Your task to perform on an android device: toggle javascript in the chrome app Image 0: 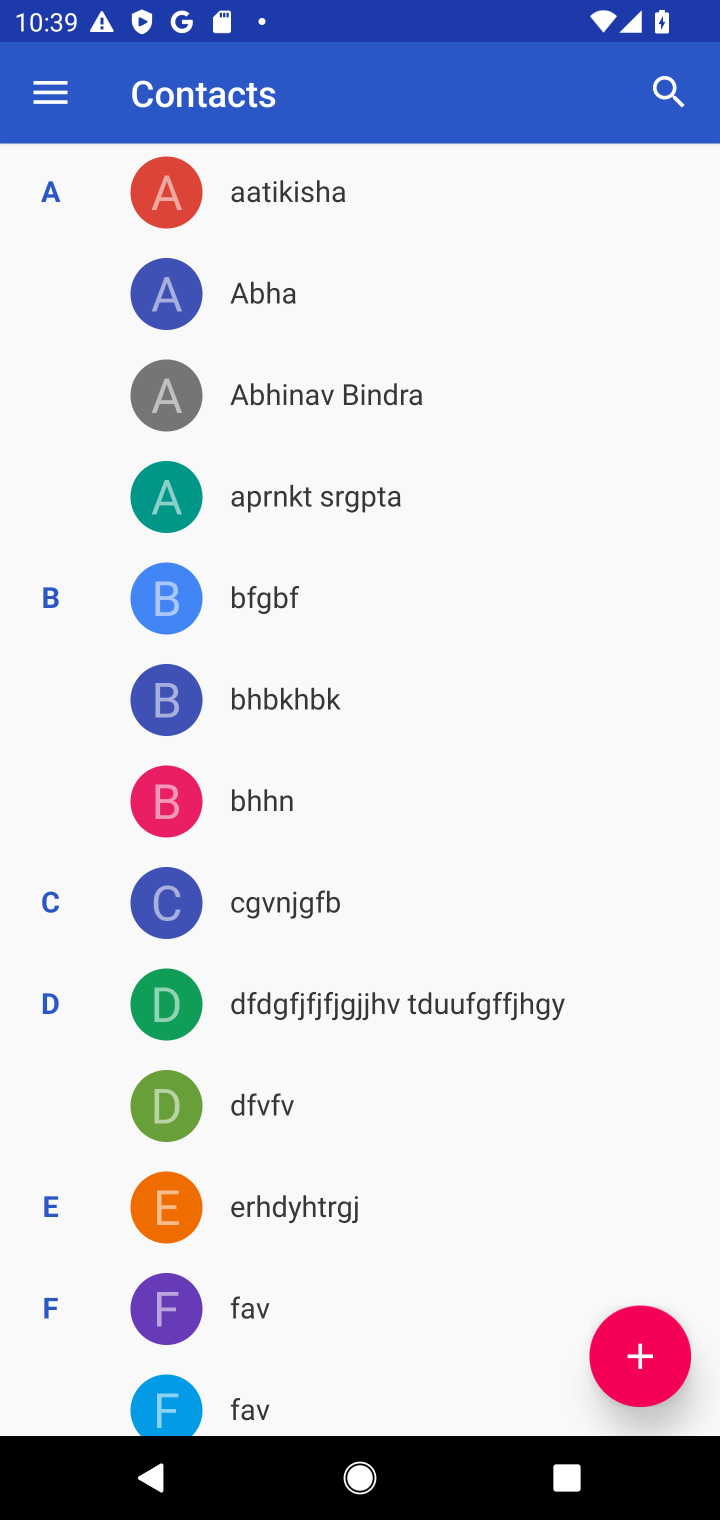
Step 0: press home button
Your task to perform on an android device: toggle javascript in the chrome app Image 1: 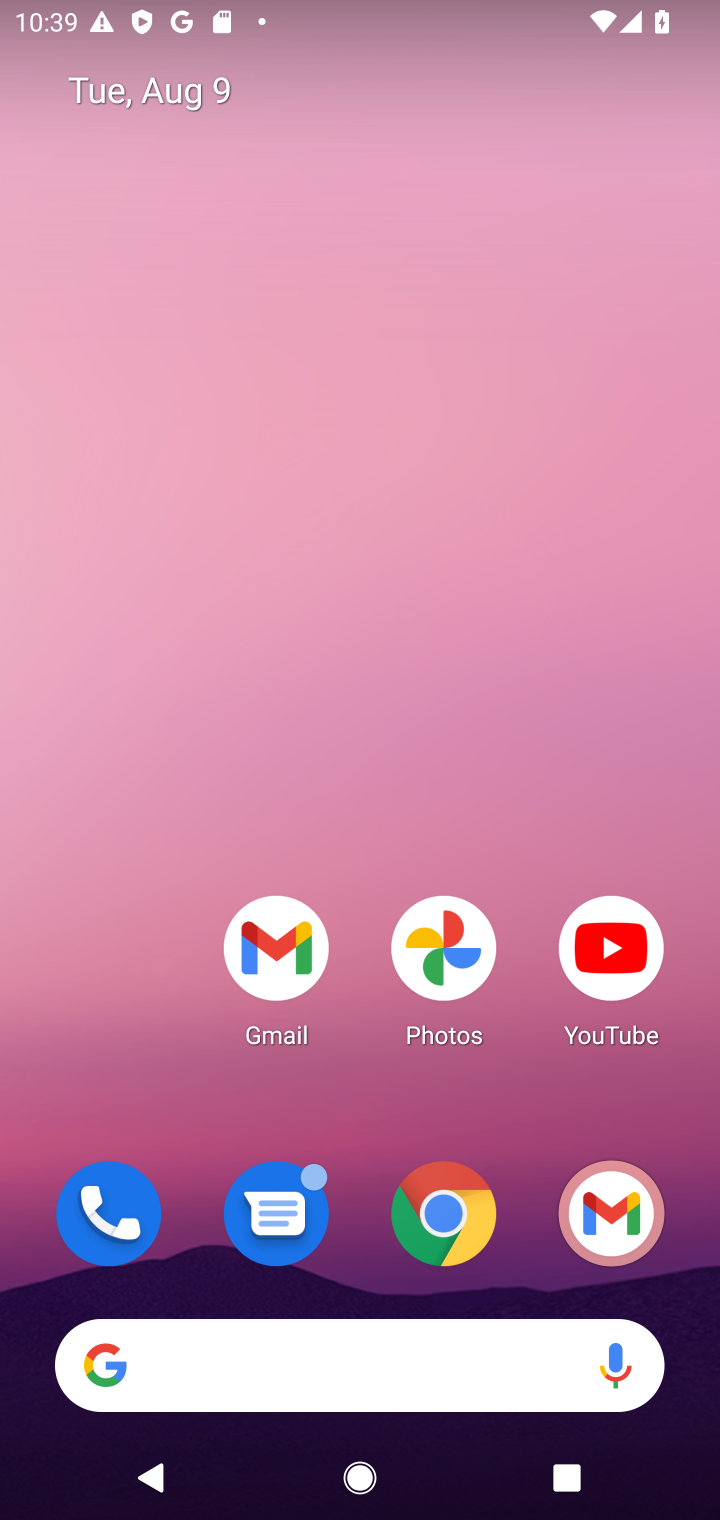
Step 1: click (409, 1262)
Your task to perform on an android device: toggle javascript in the chrome app Image 2: 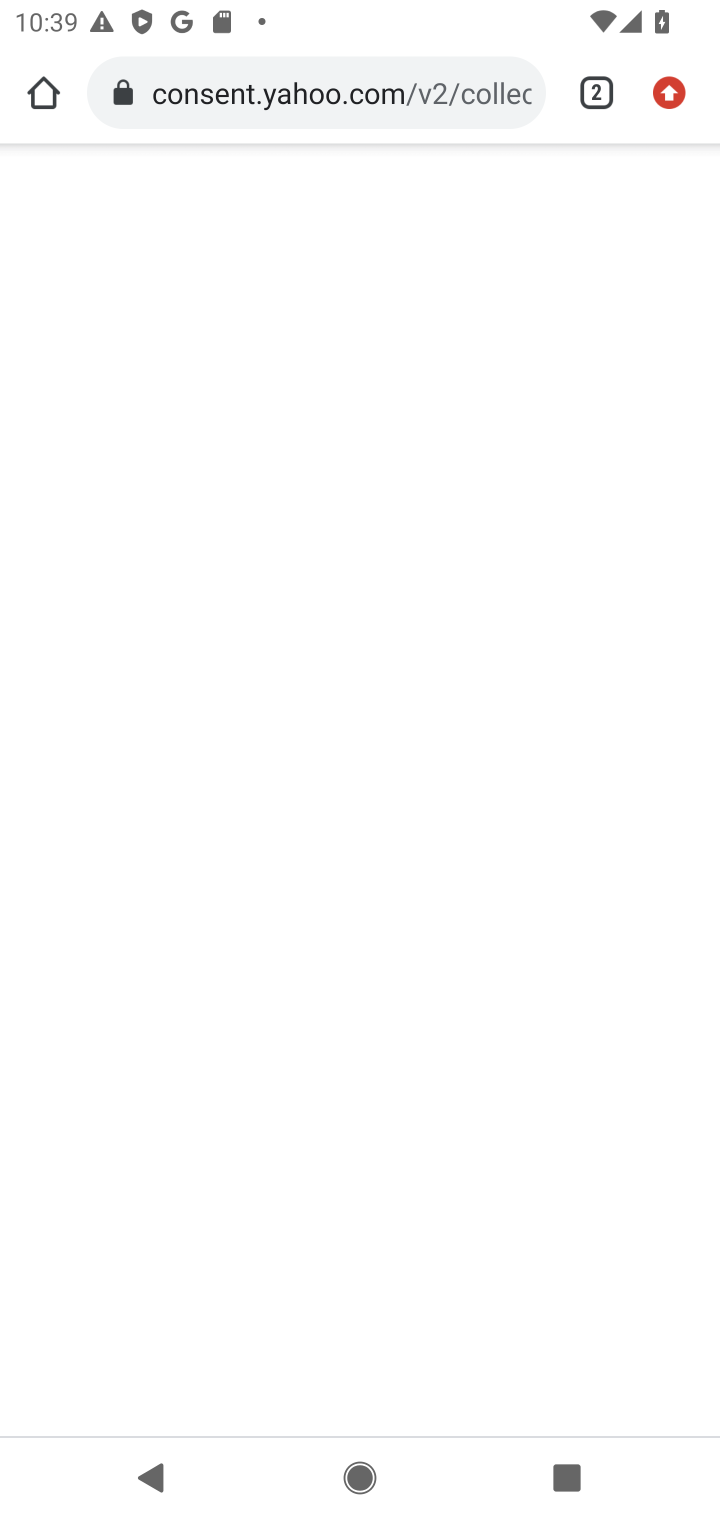
Step 2: drag from (682, 93) to (366, 1297)
Your task to perform on an android device: toggle javascript in the chrome app Image 3: 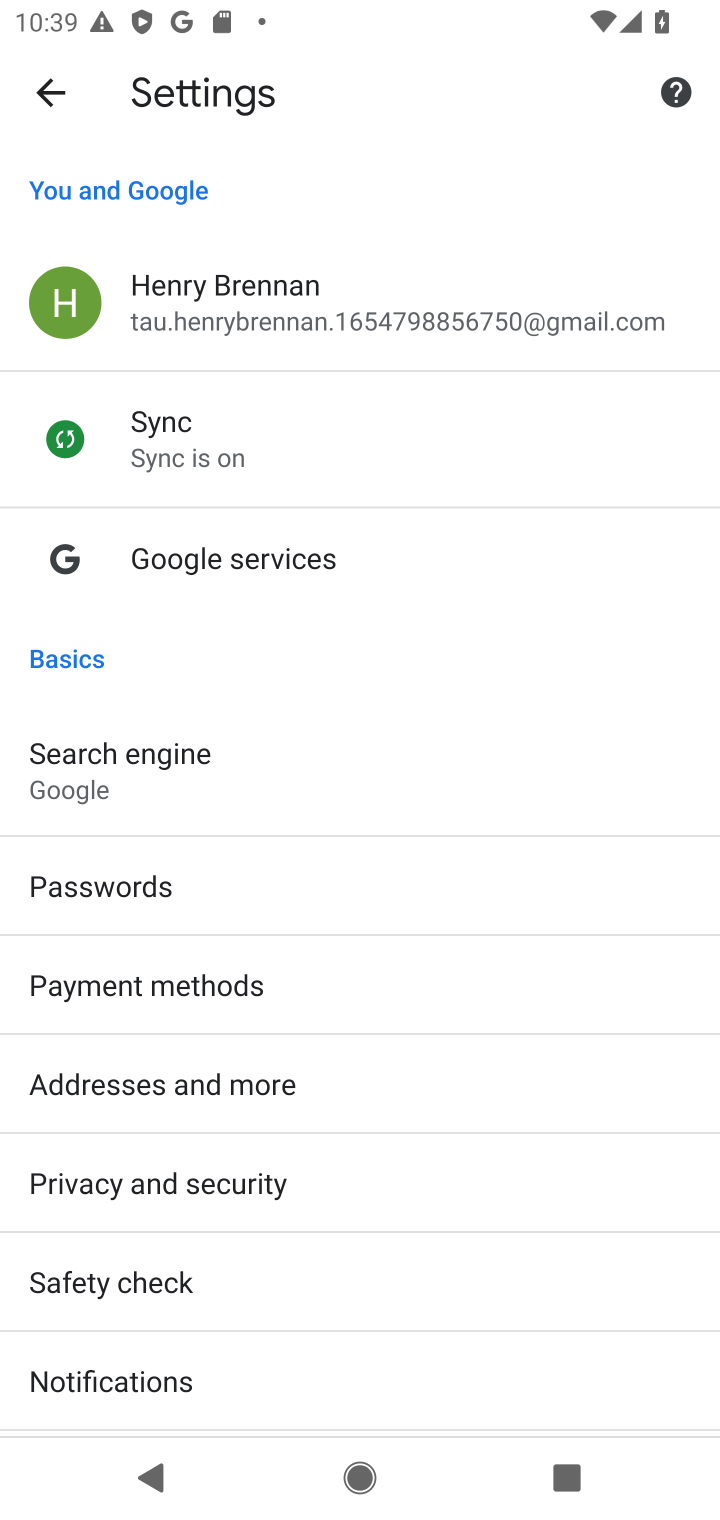
Step 3: drag from (168, 1301) to (164, 658)
Your task to perform on an android device: toggle javascript in the chrome app Image 4: 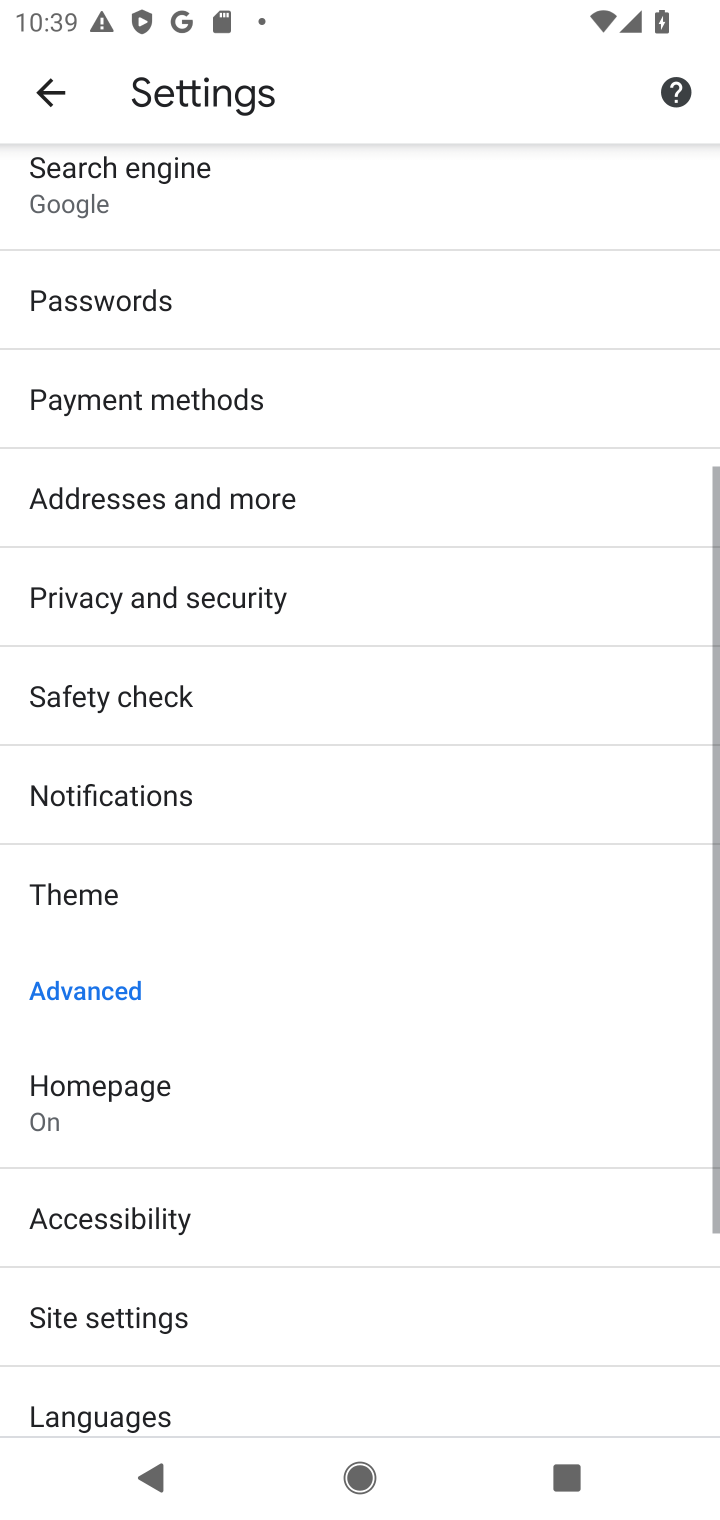
Step 4: click (195, 1324)
Your task to perform on an android device: toggle javascript in the chrome app Image 5: 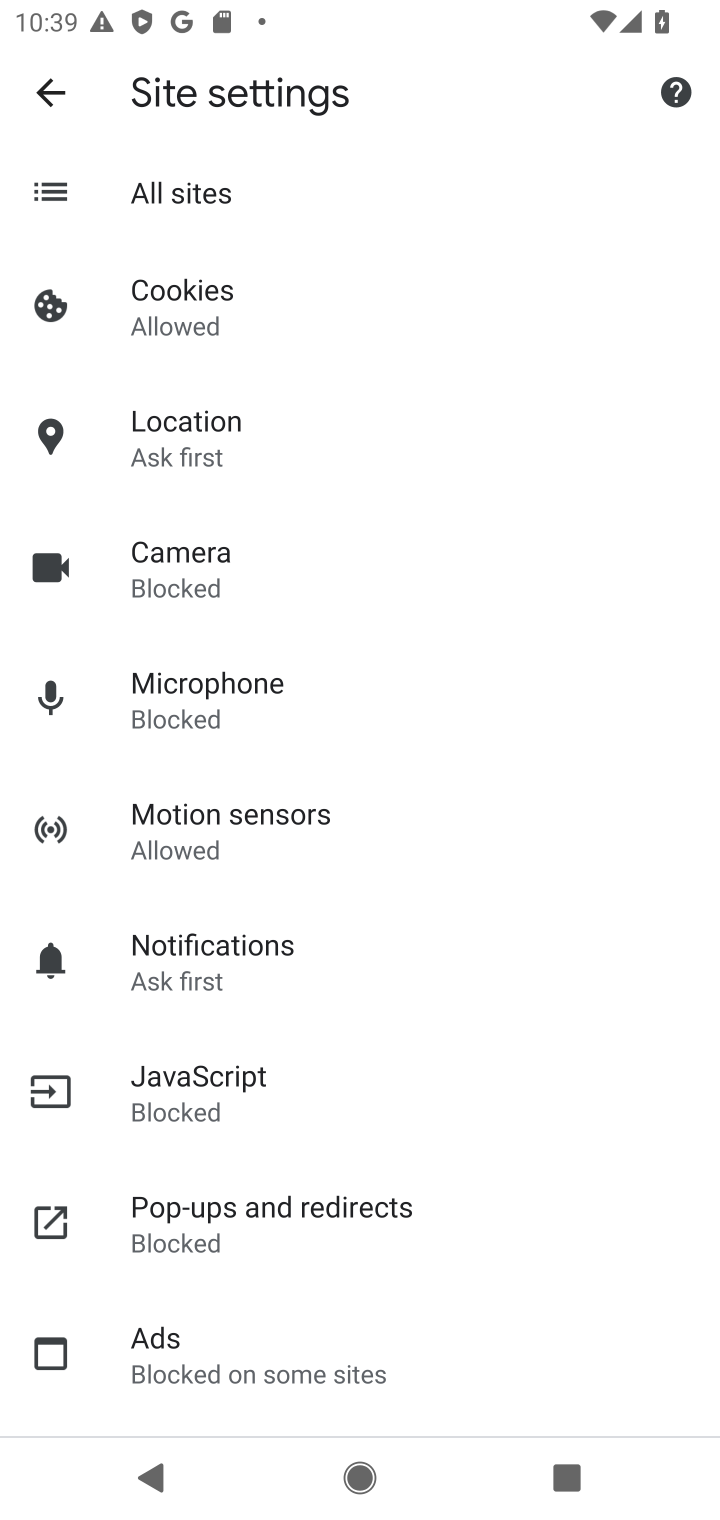
Step 5: click (216, 1097)
Your task to perform on an android device: toggle javascript in the chrome app Image 6: 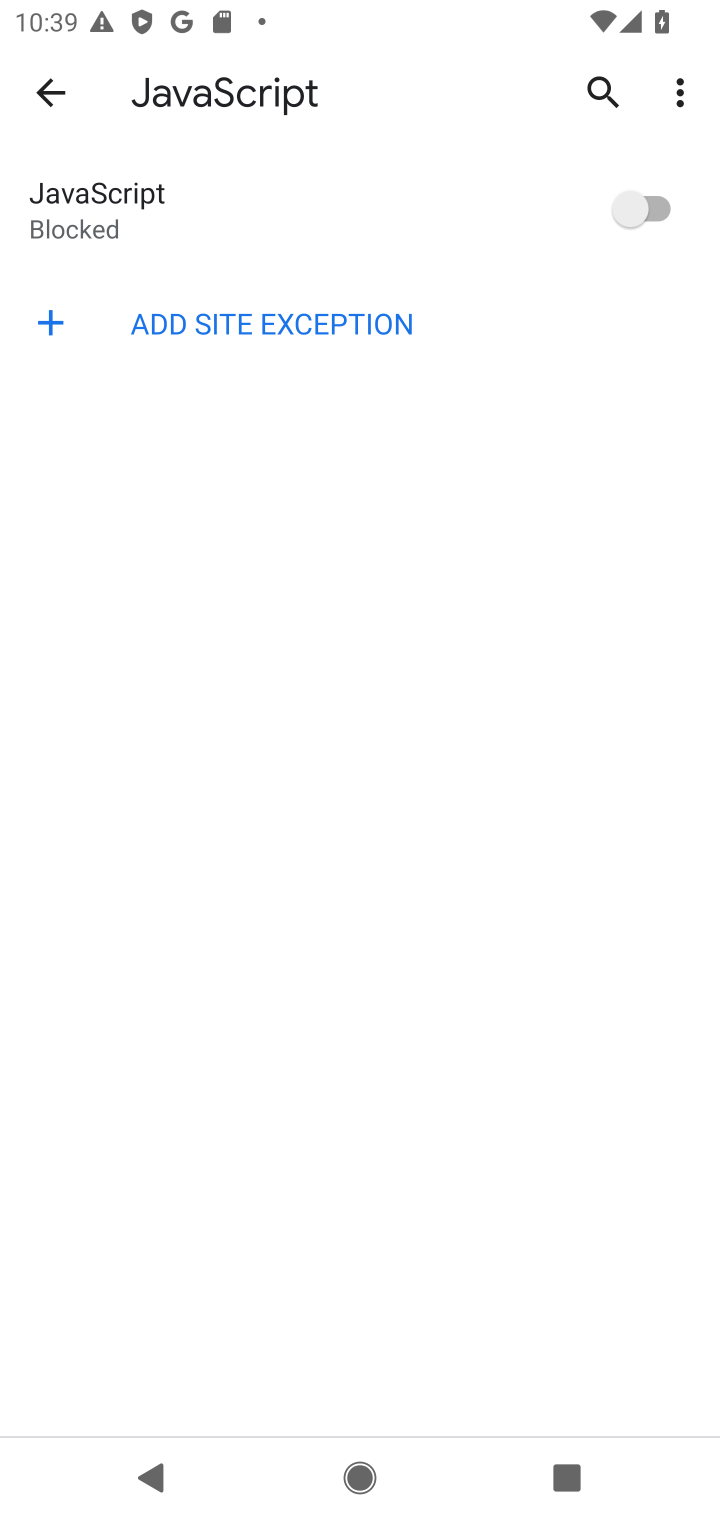
Step 6: click (675, 197)
Your task to perform on an android device: toggle javascript in the chrome app Image 7: 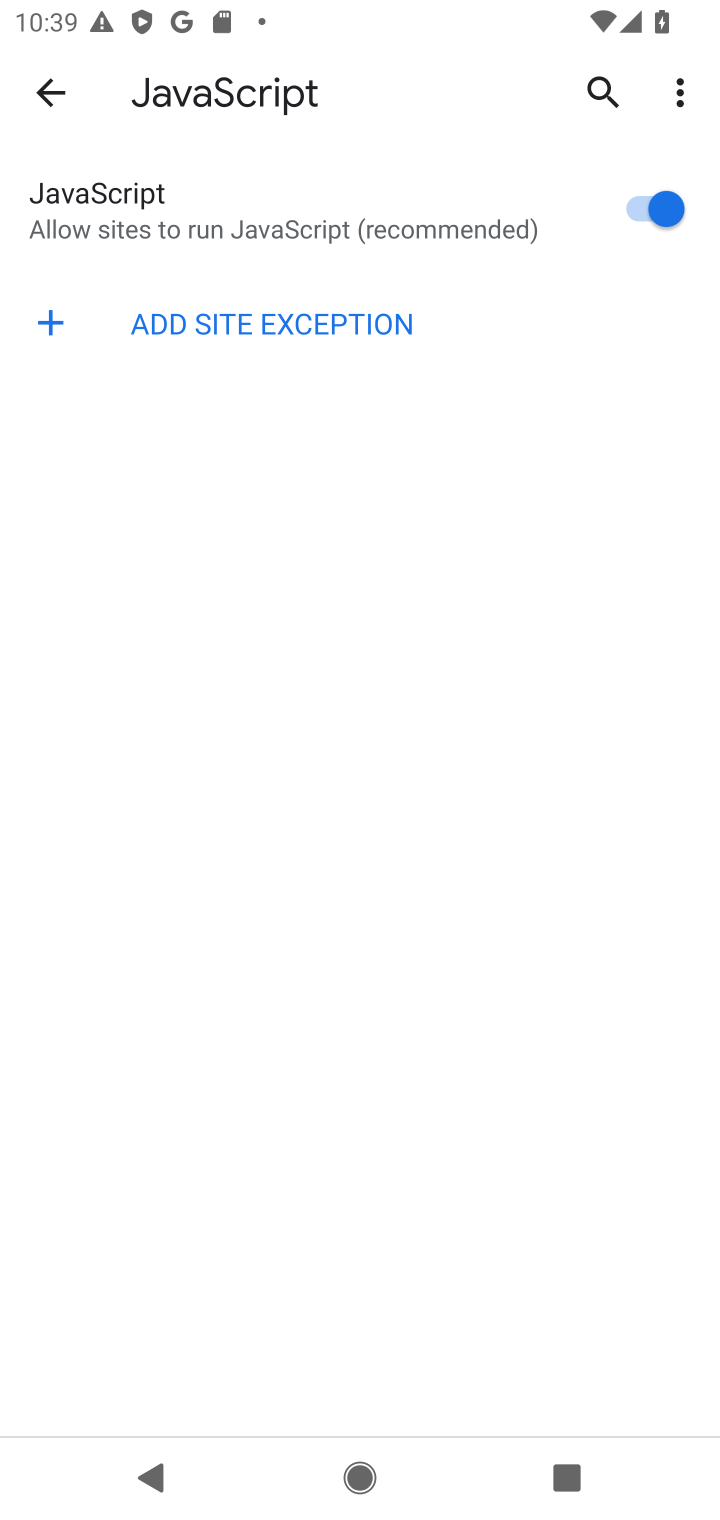
Step 7: task complete